Your task to perform on an android device: Open calendar and show me the third week of next month Image 0: 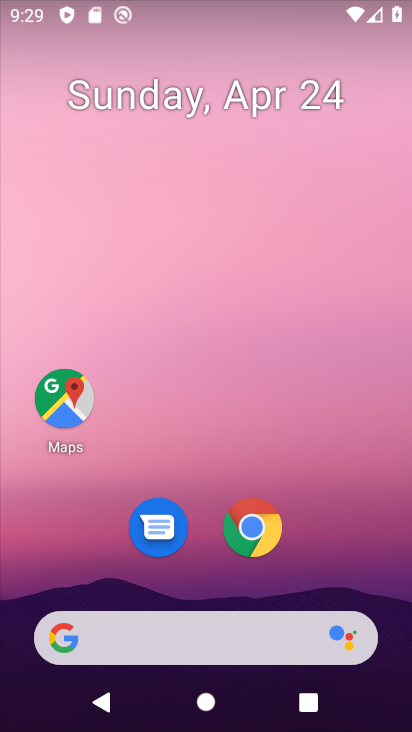
Step 0: drag from (217, 488) to (273, 108)
Your task to perform on an android device: Open calendar and show me the third week of next month Image 1: 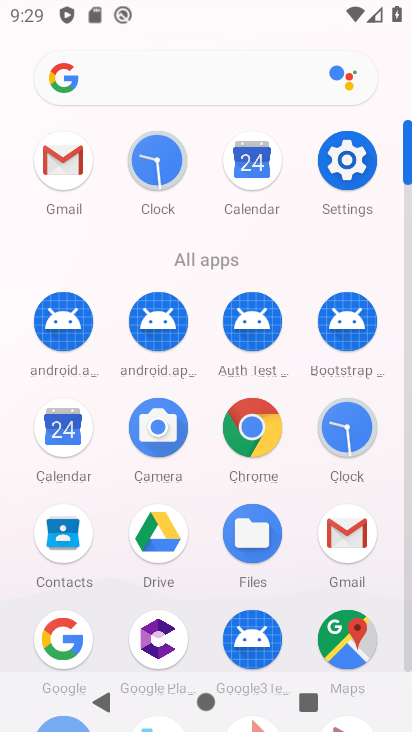
Step 1: click (51, 437)
Your task to perform on an android device: Open calendar and show me the third week of next month Image 2: 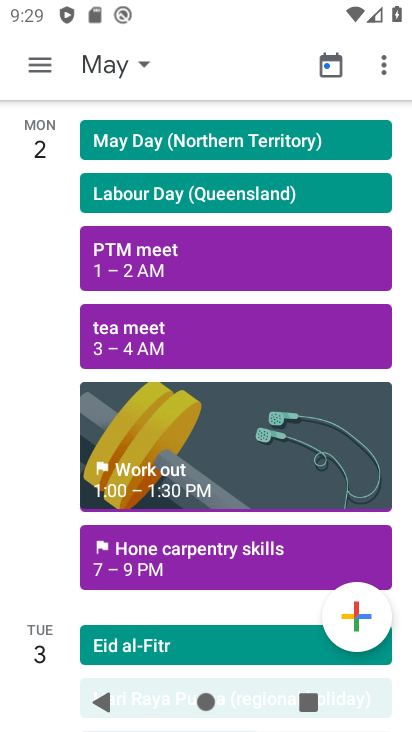
Step 2: click (141, 66)
Your task to perform on an android device: Open calendar and show me the third week of next month Image 3: 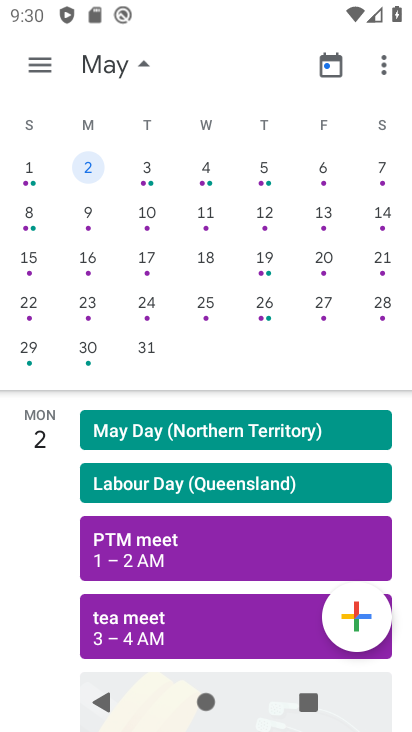
Step 3: click (84, 257)
Your task to perform on an android device: Open calendar and show me the third week of next month Image 4: 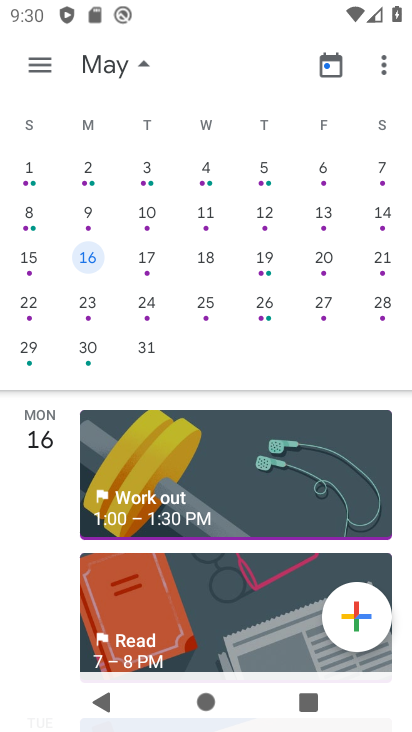
Step 4: task complete